Your task to perform on an android device: Go to wifi settings Image 0: 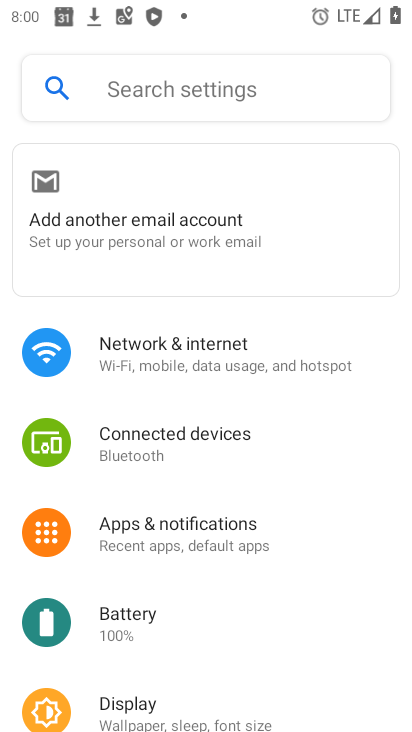
Step 0: press home button
Your task to perform on an android device: Go to wifi settings Image 1: 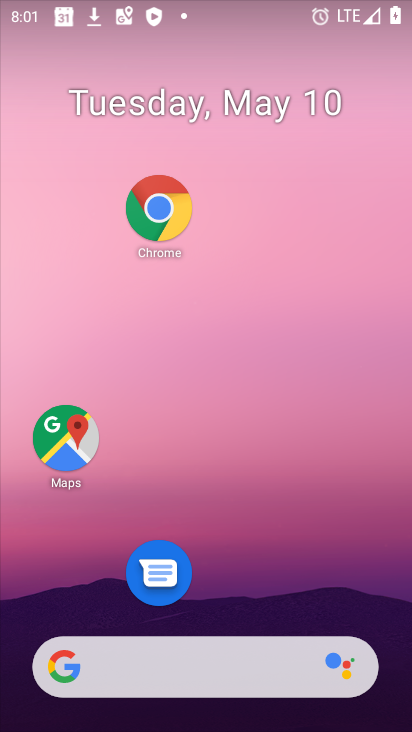
Step 1: drag from (285, 706) to (389, 182)
Your task to perform on an android device: Go to wifi settings Image 2: 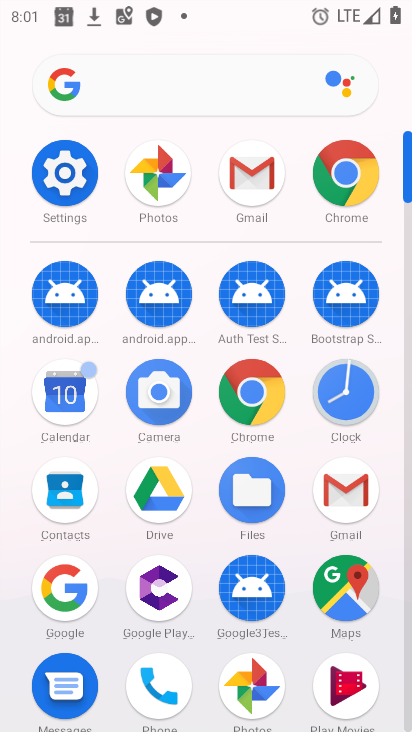
Step 2: click (58, 173)
Your task to perform on an android device: Go to wifi settings Image 3: 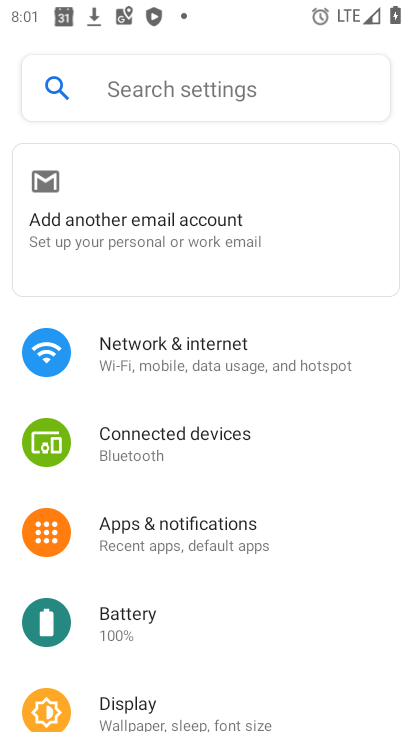
Step 3: click (182, 349)
Your task to perform on an android device: Go to wifi settings Image 4: 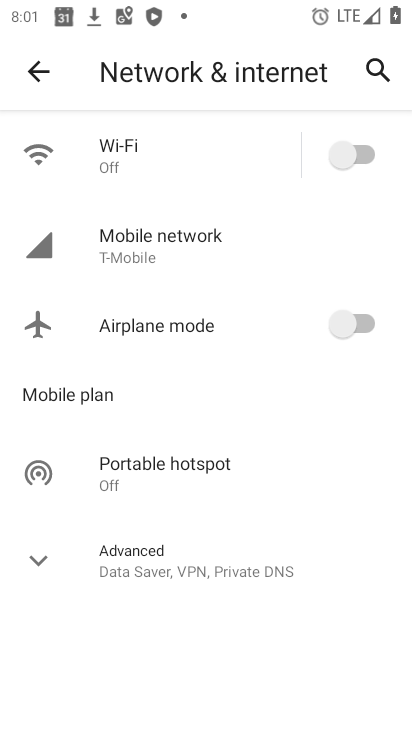
Step 4: click (156, 163)
Your task to perform on an android device: Go to wifi settings Image 5: 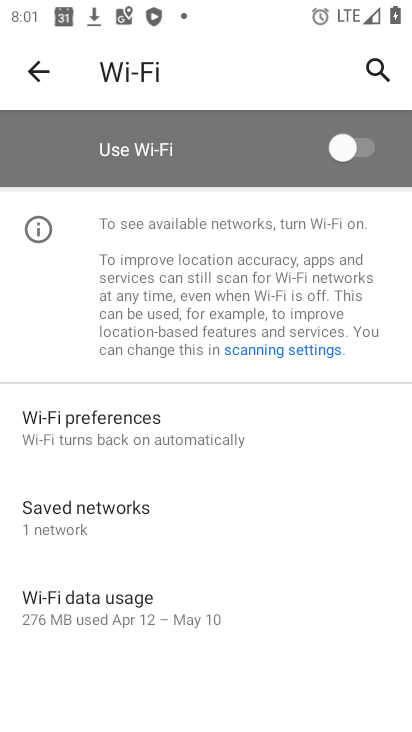
Step 5: task complete